Your task to perform on an android device: add a contact Image 0: 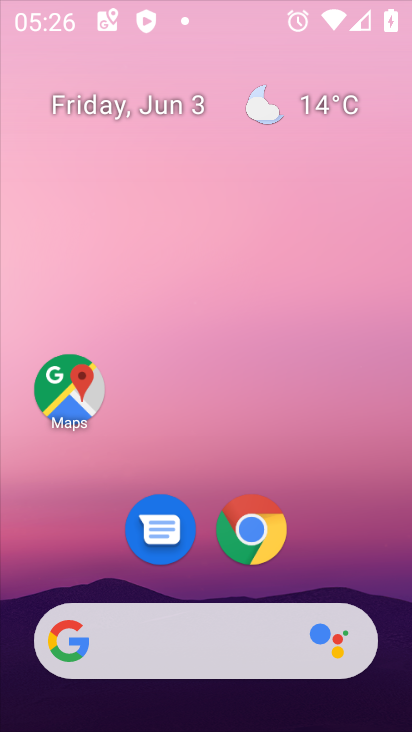
Step 0: press home button
Your task to perform on an android device: add a contact Image 1: 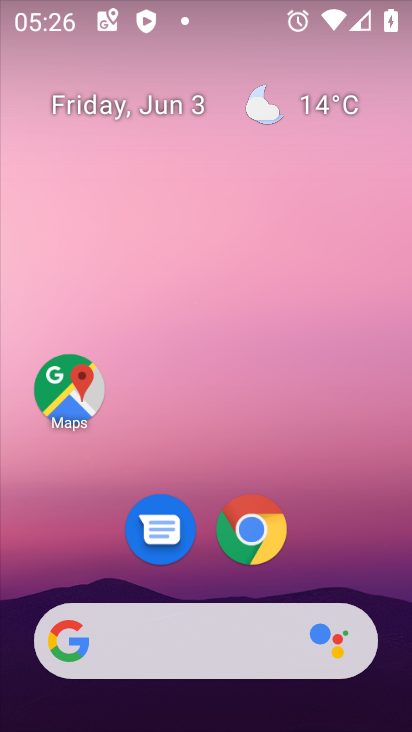
Step 1: drag from (206, 575) to (219, 50)
Your task to perform on an android device: add a contact Image 2: 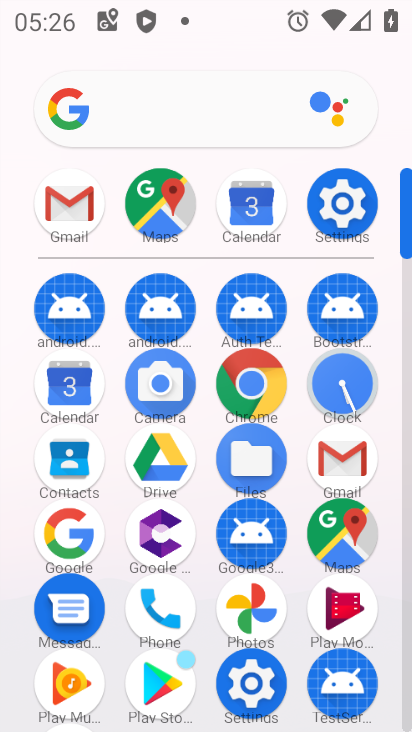
Step 2: click (67, 451)
Your task to perform on an android device: add a contact Image 3: 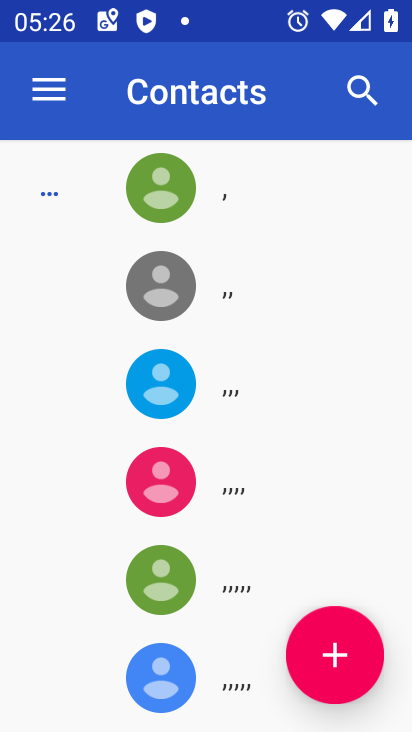
Step 3: click (334, 648)
Your task to perform on an android device: add a contact Image 4: 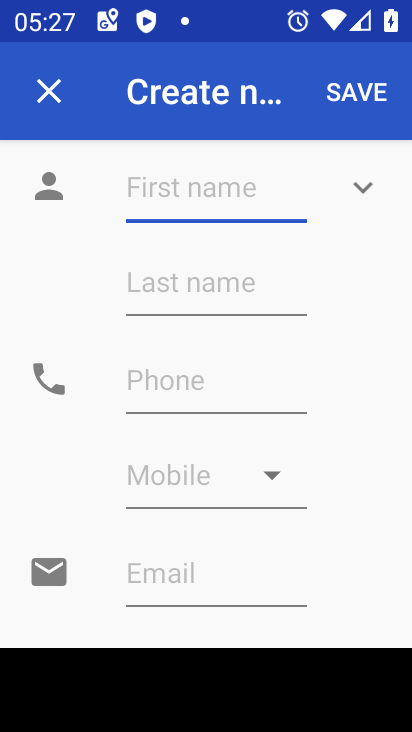
Step 4: type "bfhfngh"
Your task to perform on an android device: add a contact Image 5: 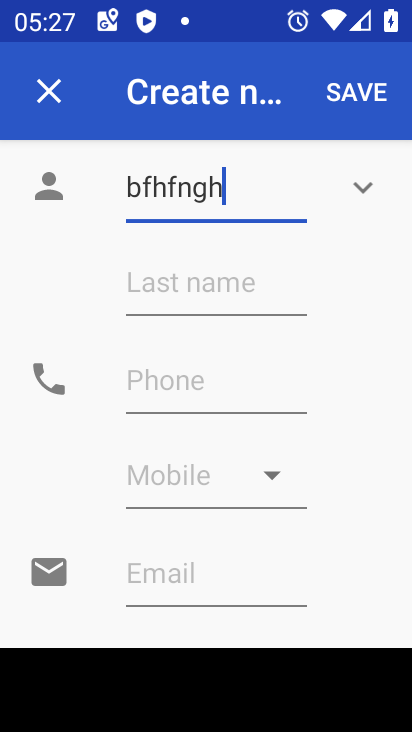
Step 5: click (357, 91)
Your task to perform on an android device: add a contact Image 6: 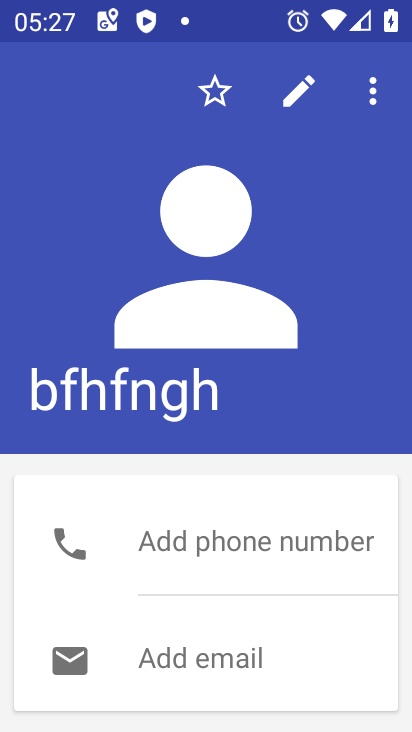
Step 6: press home button
Your task to perform on an android device: add a contact Image 7: 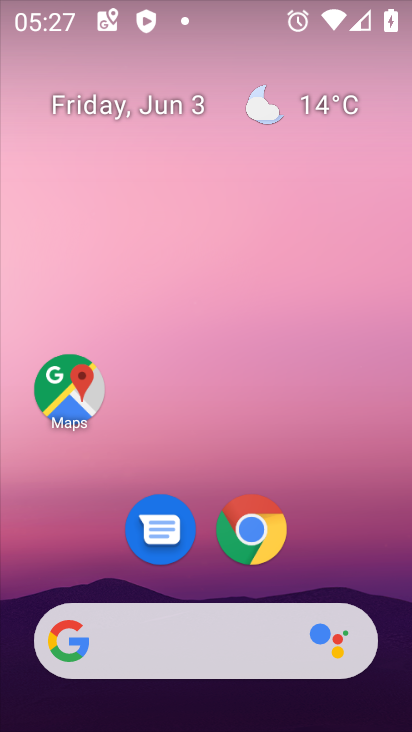
Step 7: drag from (207, 437) to (220, 37)
Your task to perform on an android device: add a contact Image 8: 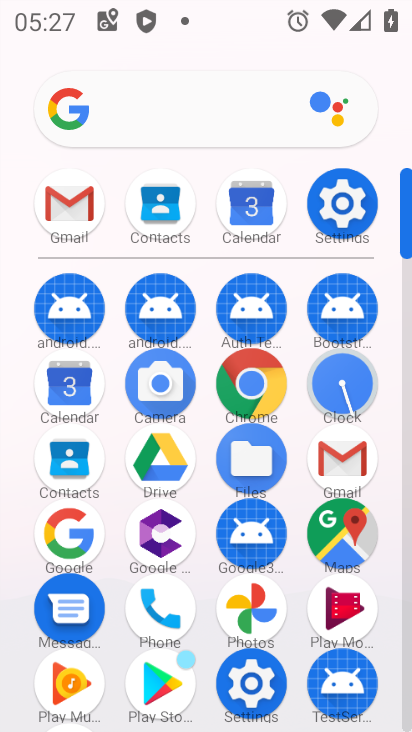
Step 8: click (157, 201)
Your task to perform on an android device: add a contact Image 9: 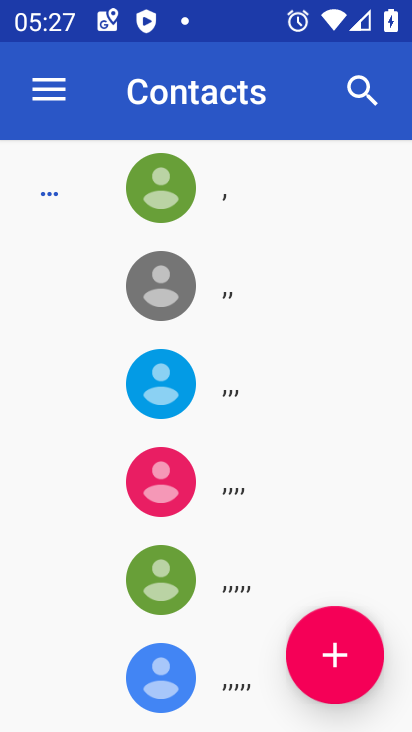
Step 9: click (340, 663)
Your task to perform on an android device: add a contact Image 10: 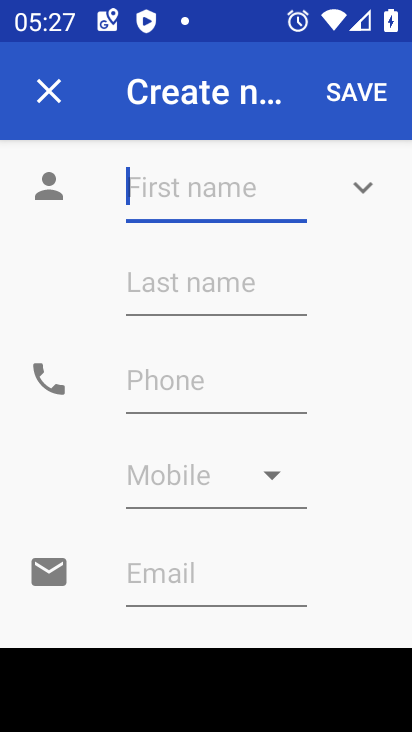
Step 10: type "cbnhh"
Your task to perform on an android device: add a contact Image 11: 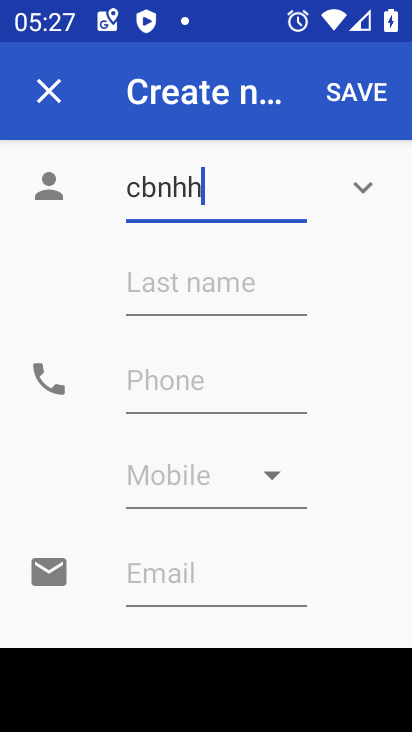
Step 11: click (347, 95)
Your task to perform on an android device: add a contact Image 12: 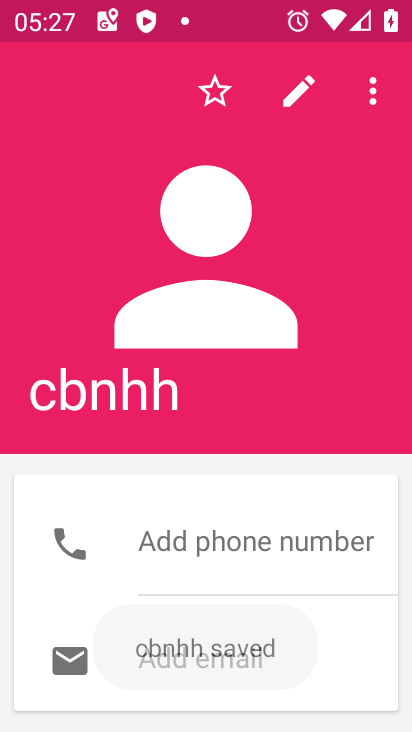
Step 12: task complete